Your task to perform on an android device: Go to battery settings Image 0: 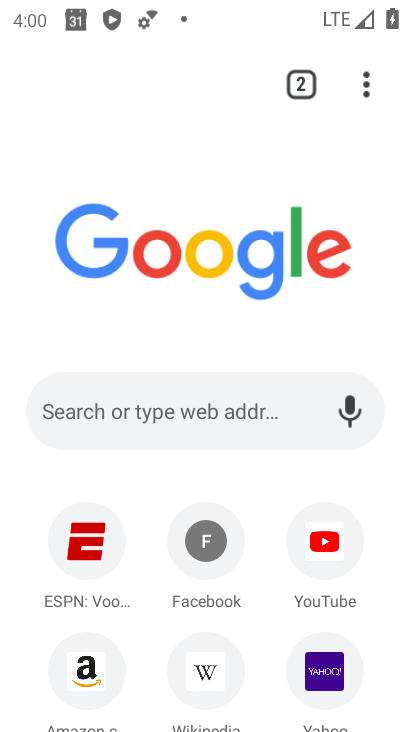
Step 0: press home button
Your task to perform on an android device: Go to battery settings Image 1: 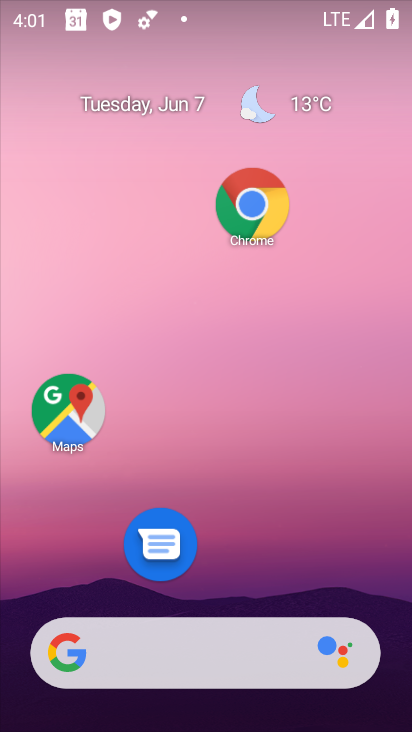
Step 1: drag from (243, 567) to (249, 5)
Your task to perform on an android device: Go to battery settings Image 2: 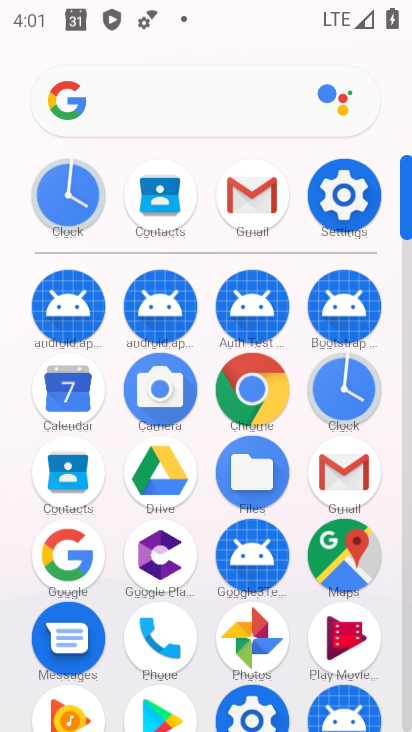
Step 2: click (337, 195)
Your task to perform on an android device: Go to battery settings Image 3: 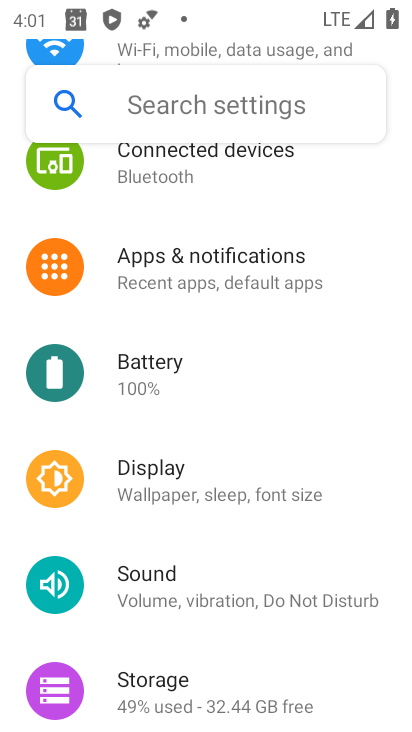
Step 3: click (194, 363)
Your task to perform on an android device: Go to battery settings Image 4: 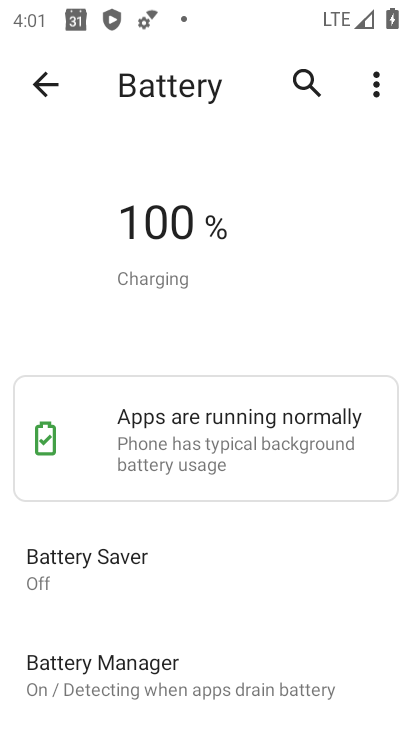
Step 4: task complete